Your task to perform on an android device: move an email to a new category in the gmail app Image 0: 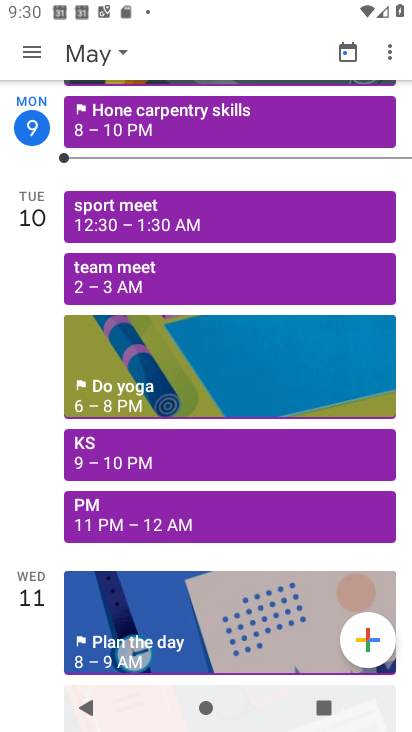
Step 0: press home button
Your task to perform on an android device: move an email to a new category in the gmail app Image 1: 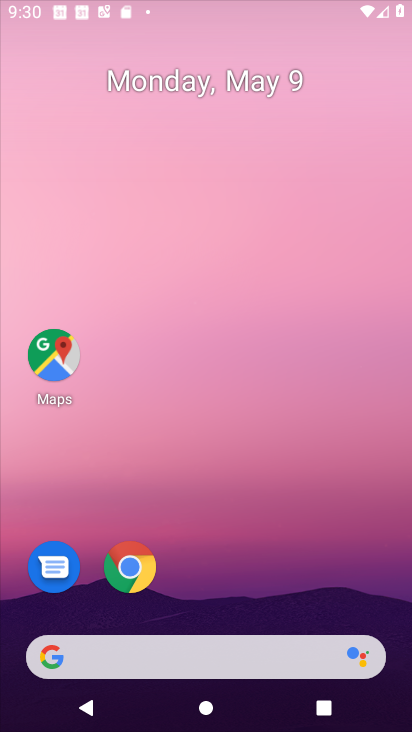
Step 1: drag from (218, 623) to (262, 124)
Your task to perform on an android device: move an email to a new category in the gmail app Image 2: 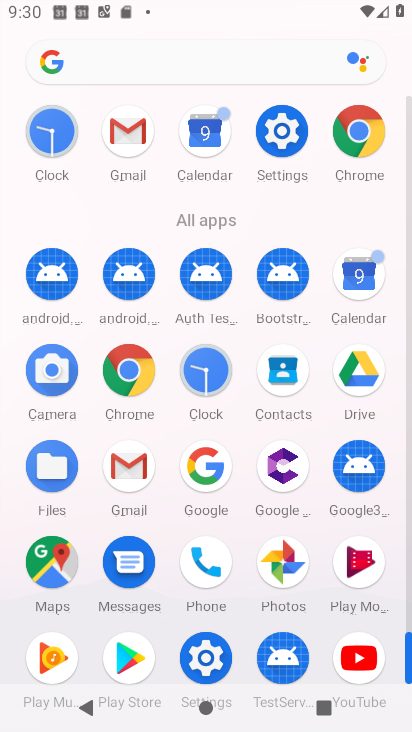
Step 2: click (139, 471)
Your task to perform on an android device: move an email to a new category in the gmail app Image 3: 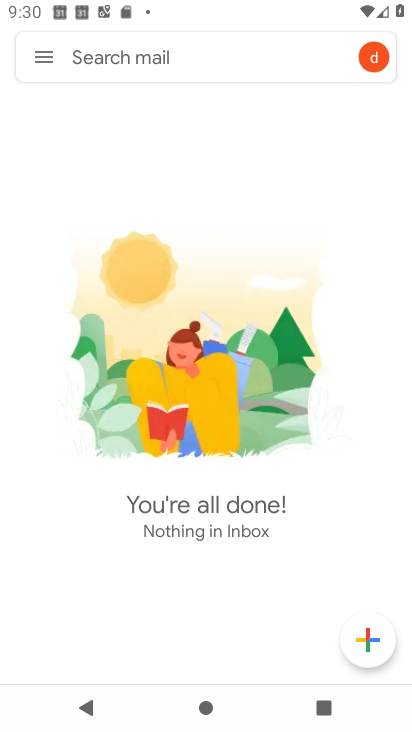
Step 3: click (38, 50)
Your task to perform on an android device: move an email to a new category in the gmail app Image 4: 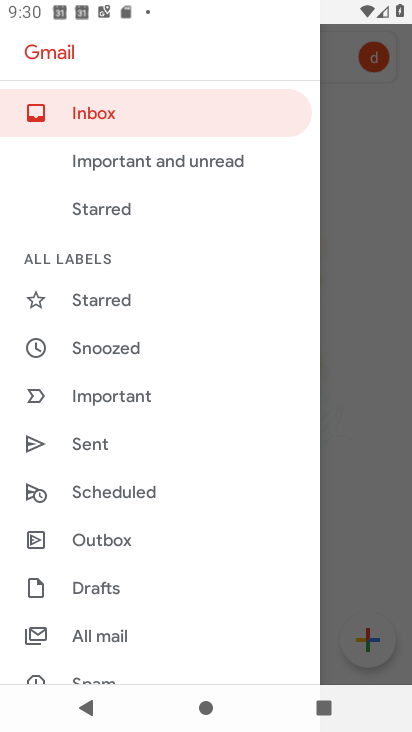
Step 4: drag from (118, 630) to (187, 127)
Your task to perform on an android device: move an email to a new category in the gmail app Image 5: 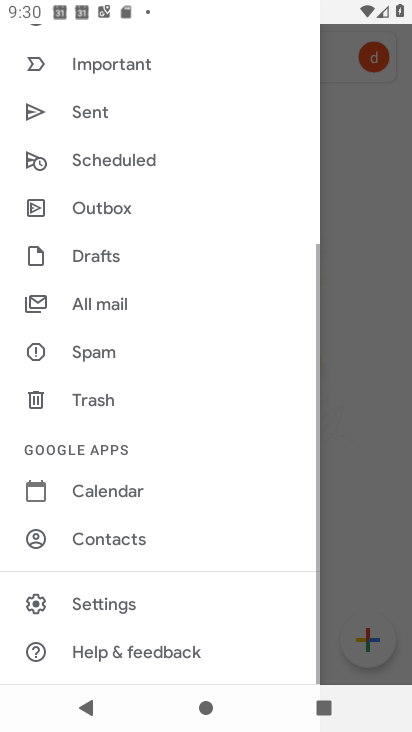
Step 5: click (131, 600)
Your task to perform on an android device: move an email to a new category in the gmail app Image 6: 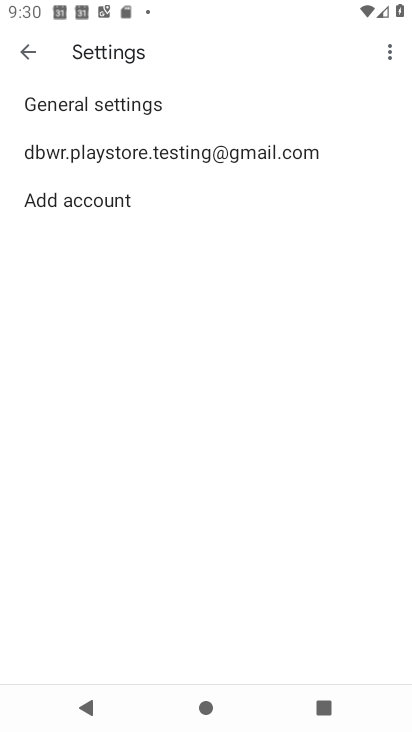
Step 6: click (16, 50)
Your task to perform on an android device: move an email to a new category in the gmail app Image 7: 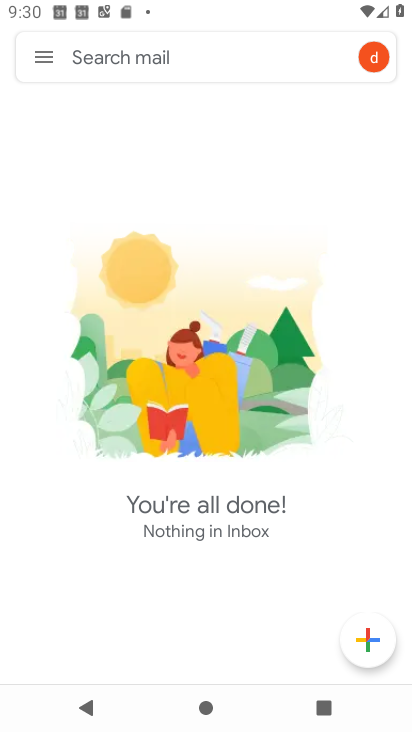
Step 7: click (49, 77)
Your task to perform on an android device: move an email to a new category in the gmail app Image 8: 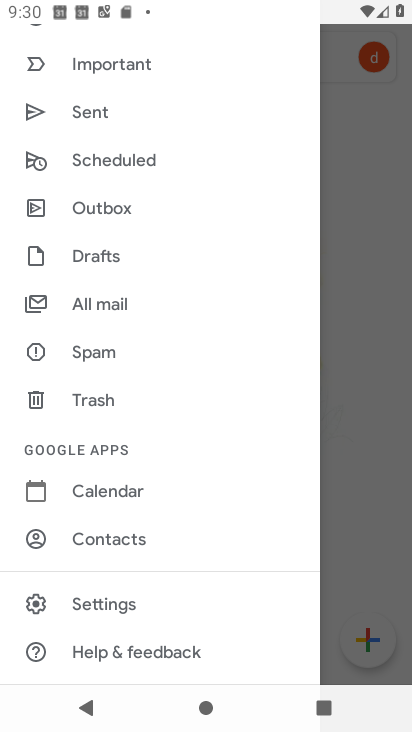
Step 8: click (125, 309)
Your task to perform on an android device: move an email to a new category in the gmail app Image 9: 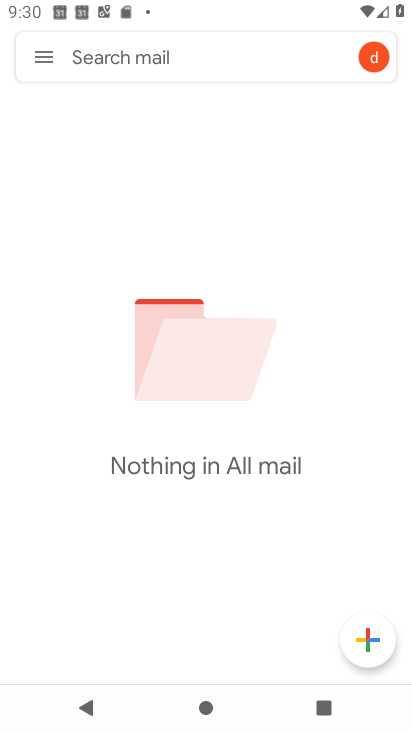
Step 9: task complete